Your task to perform on an android device: Go to privacy settings Image 0: 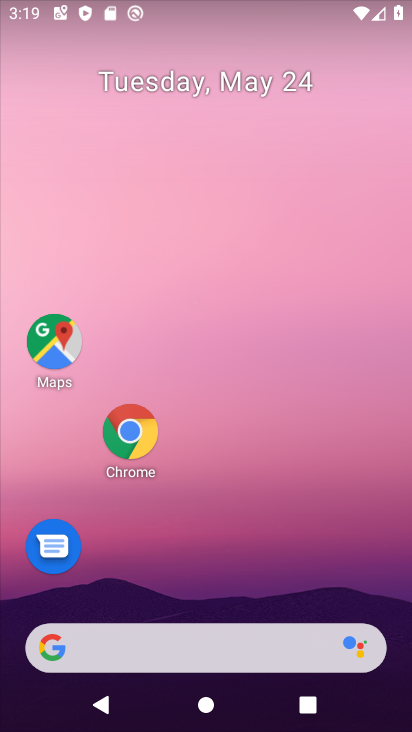
Step 0: click (201, 278)
Your task to perform on an android device: Go to privacy settings Image 1: 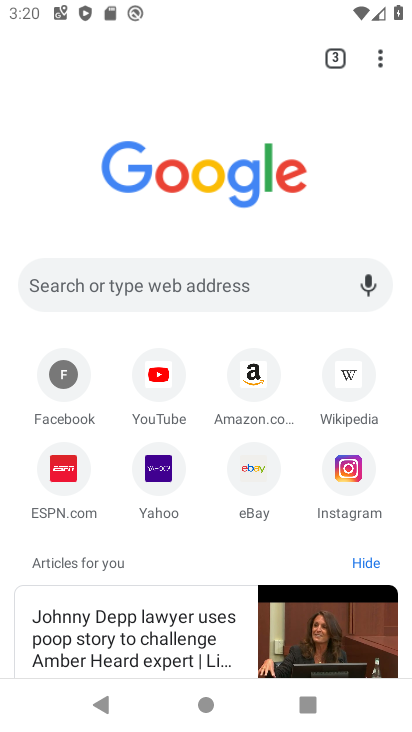
Step 1: click (380, 50)
Your task to perform on an android device: Go to privacy settings Image 2: 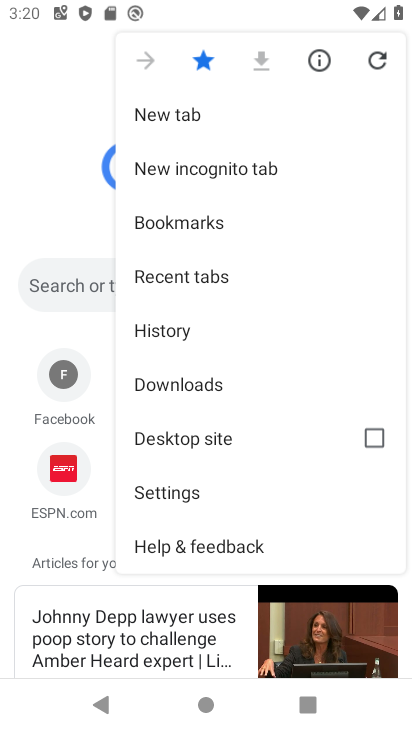
Step 2: click (223, 489)
Your task to perform on an android device: Go to privacy settings Image 3: 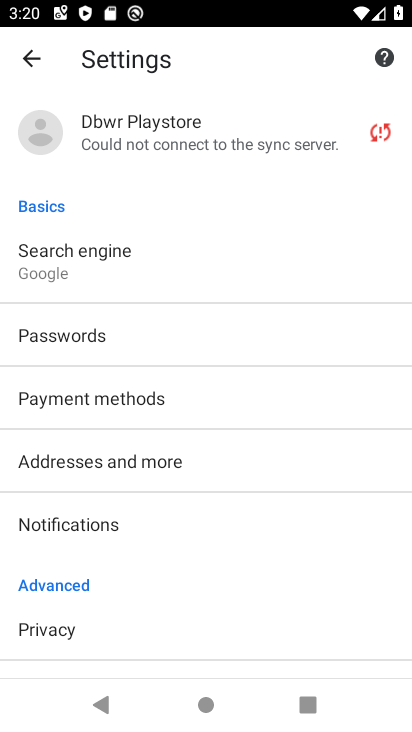
Step 3: drag from (192, 598) to (375, 18)
Your task to perform on an android device: Go to privacy settings Image 4: 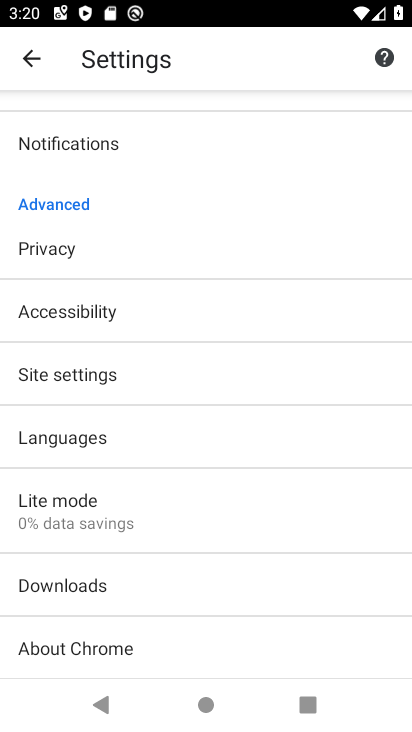
Step 4: click (95, 240)
Your task to perform on an android device: Go to privacy settings Image 5: 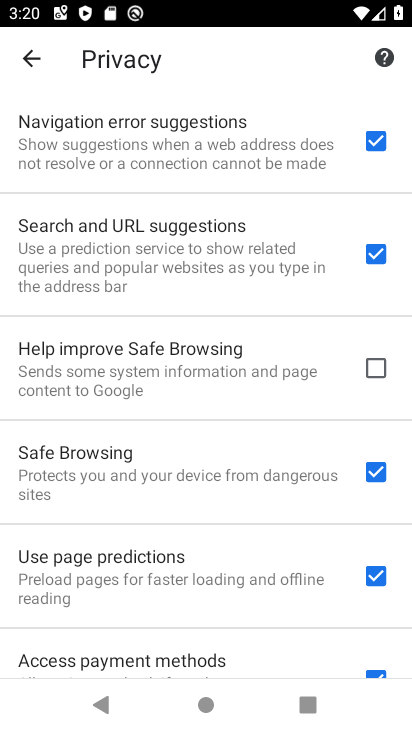
Step 5: task complete